Your task to perform on an android device: Go to calendar. Show me events next week Image 0: 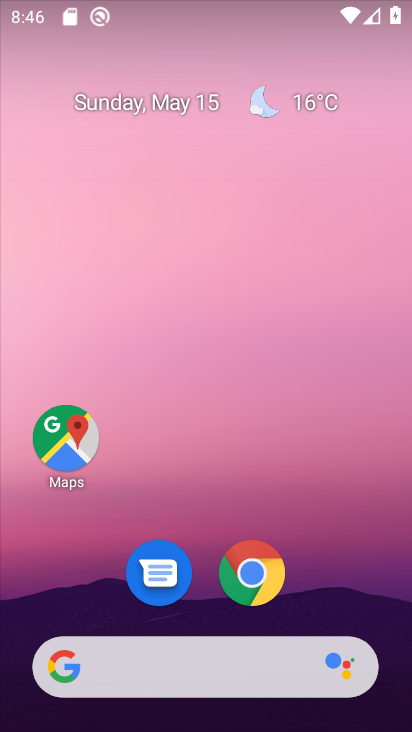
Step 0: drag from (69, 484) to (207, 73)
Your task to perform on an android device: Go to calendar. Show me events next week Image 1: 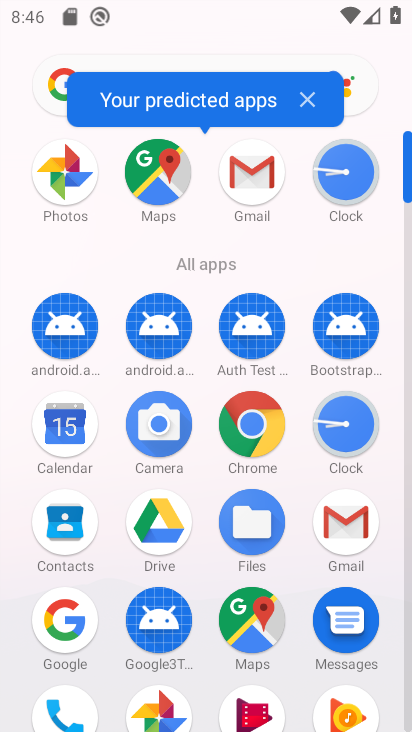
Step 1: click (45, 434)
Your task to perform on an android device: Go to calendar. Show me events next week Image 2: 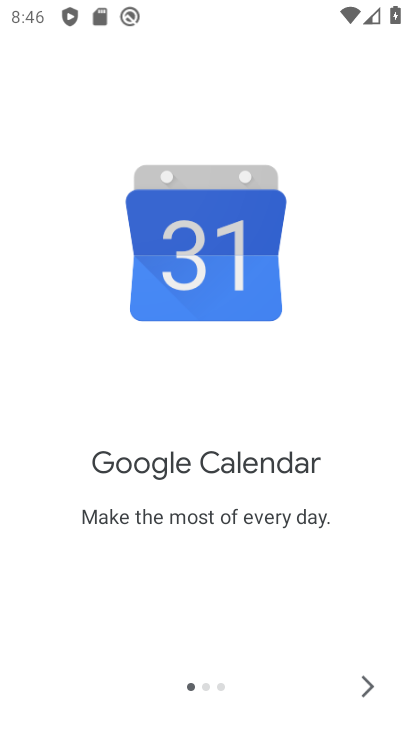
Step 2: click (365, 685)
Your task to perform on an android device: Go to calendar. Show me events next week Image 3: 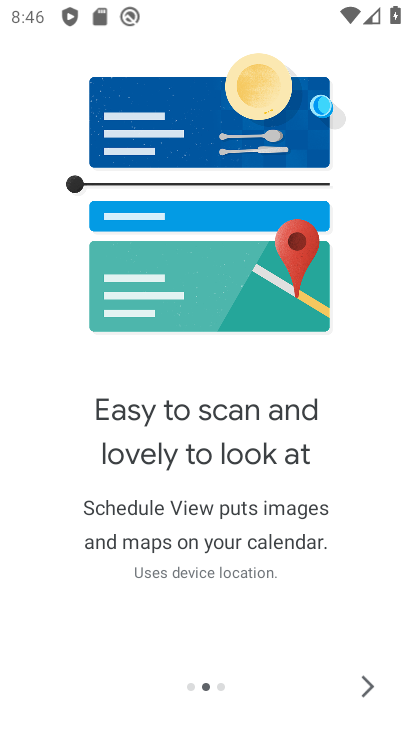
Step 3: click (366, 696)
Your task to perform on an android device: Go to calendar. Show me events next week Image 4: 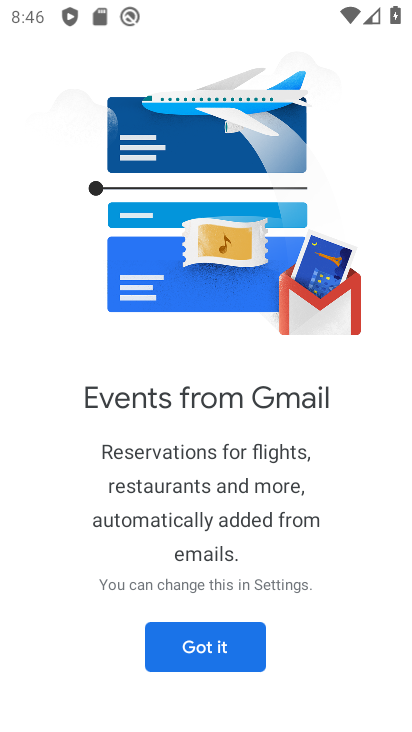
Step 4: click (253, 650)
Your task to perform on an android device: Go to calendar. Show me events next week Image 5: 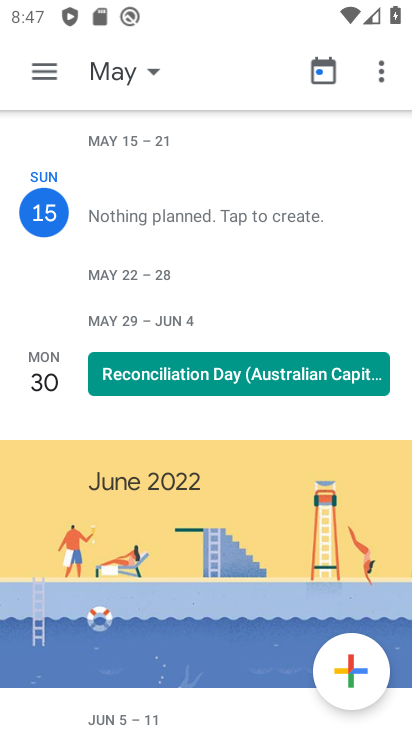
Step 5: click (131, 84)
Your task to perform on an android device: Go to calendar. Show me events next week Image 6: 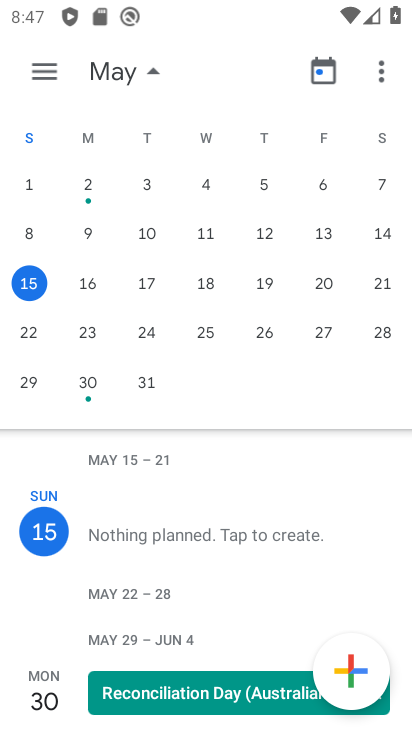
Step 6: click (96, 332)
Your task to perform on an android device: Go to calendar. Show me events next week Image 7: 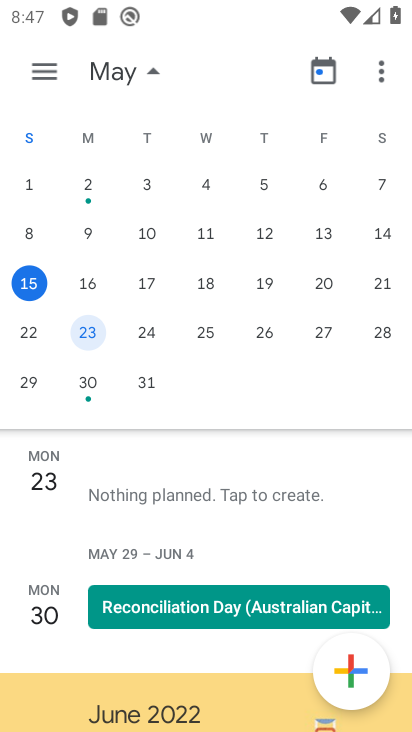
Step 7: task complete